Your task to perform on an android device: show emergency info Image 0: 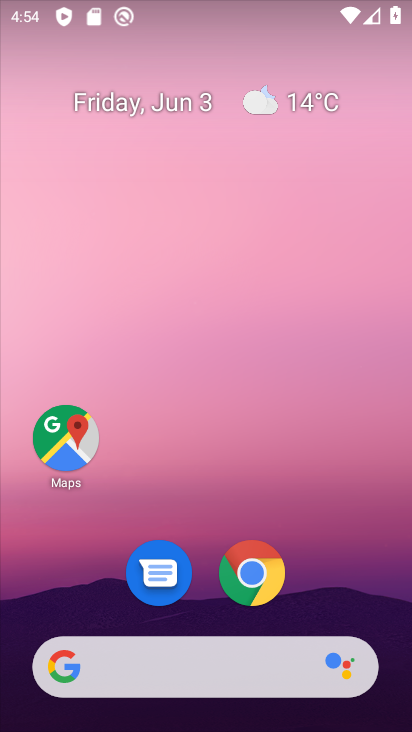
Step 0: drag from (357, 475) to (306, 3)
Your task to perform on an android device: show emergency info Image 1: 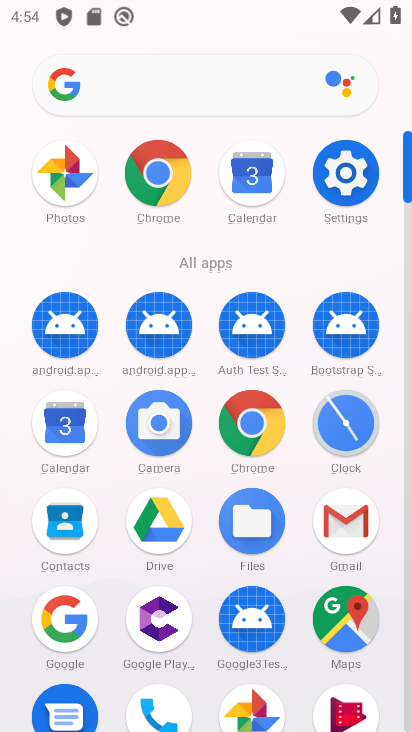
Step 1: click (348, 174)
Your task to perform on an android device: show emergency info Image 2: 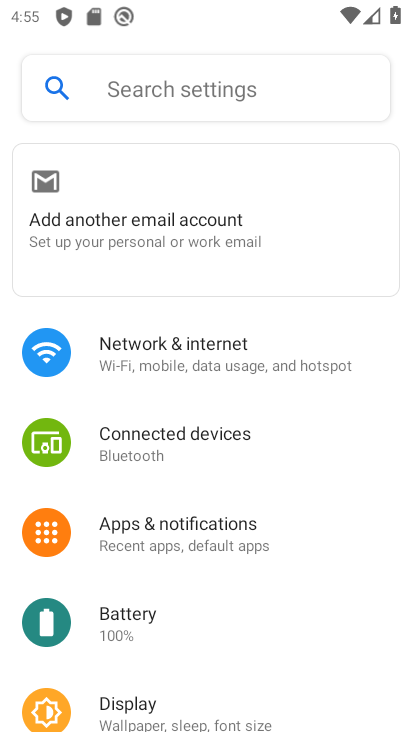
Step 2: drag from (218, 589) to (219, 112)
Your task to perform on an android device: show emergency info Image 3: 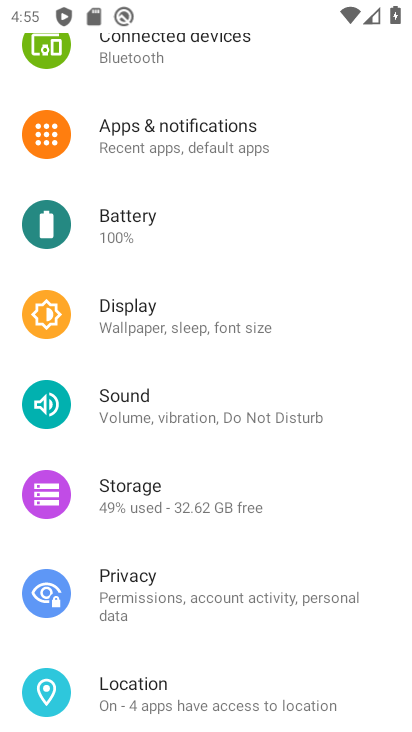
Step 3: drag from (193, 661) to (251, 93)
Your task to perform on an android device: show emergency info Image 4: 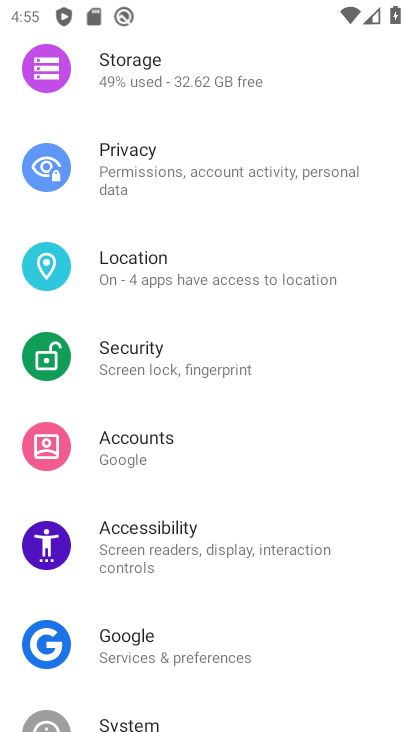
Step 4: drag from (195, 546) to (232, 97)
Your task to perform on an android device: show emergency info Image 5: 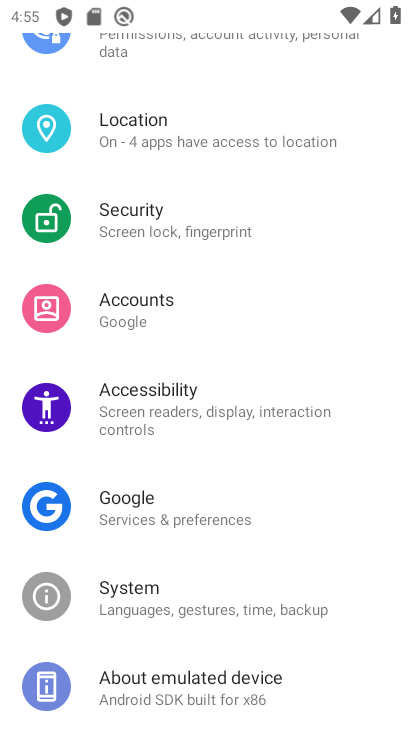
Step 5: click (147, 709)
Your task to perform on an android device: show emergency info Image 6: 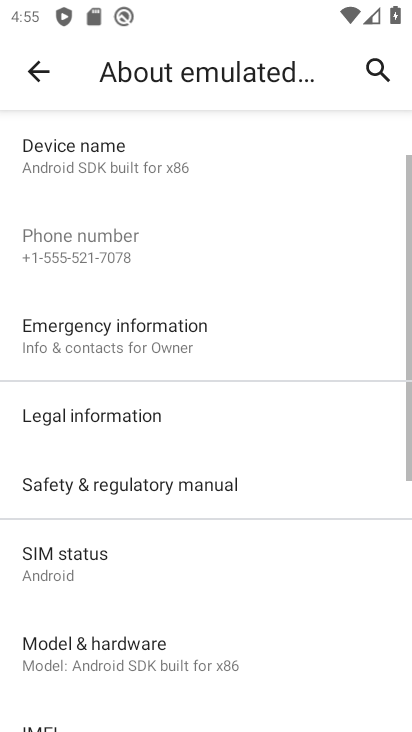
Step 6: click (209, 328)
Your task to perform on an android device: show emergency info Image 7: 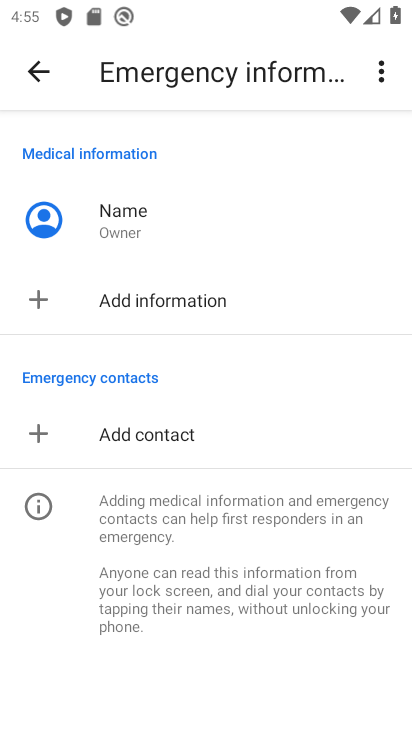
Step 7: task complete